Your task to perform on an android device: turn pop-ups on in chrome Image 0: 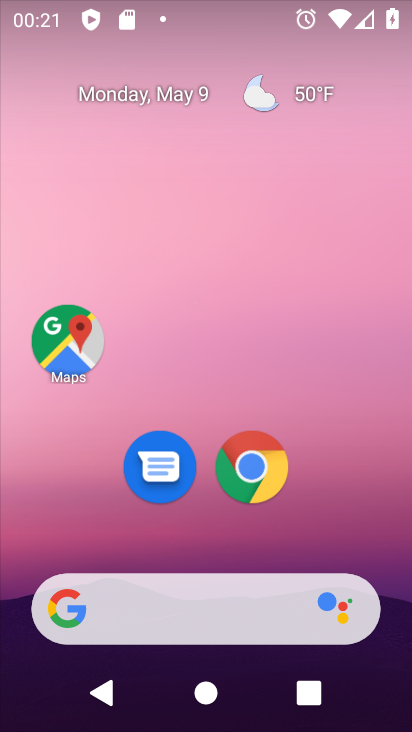
Step 0: click (243, 458)
Your task to perform on an android device: turn pop-ups on in chrome Image 1: 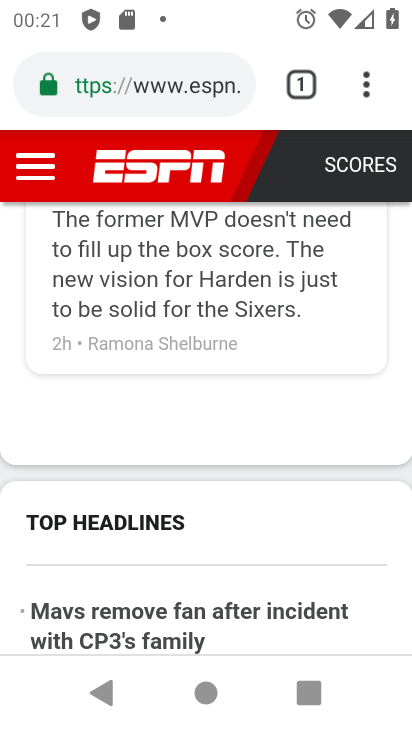
Step 1: click (368, 77)
Your task to perform on an android device: turn pop-ups on in chrome Image 2: 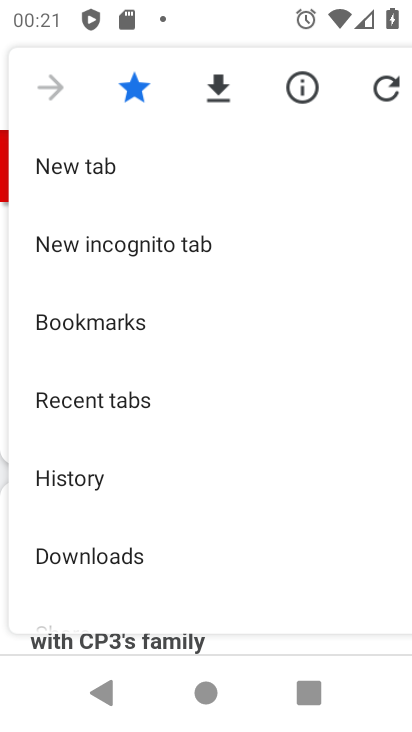
Step 2: drag from (175, 567) to (225, 121)
Your task to perform on an android device: turn pop-ups on in chrome Image 3: 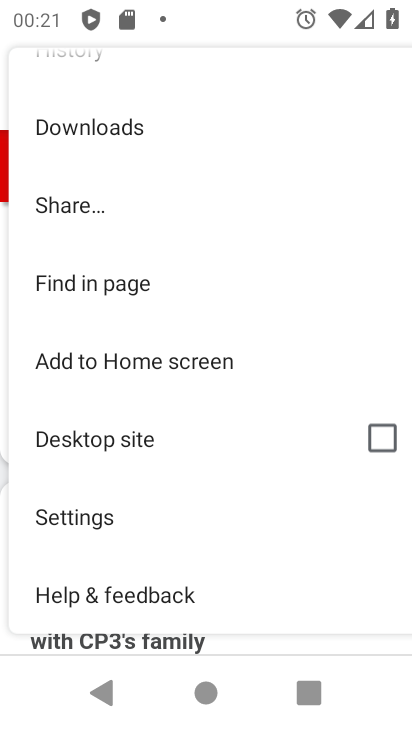
Step 3: click (120, 519)
Your task to perform on an android device: turn pop-ups on in chrome Image 4: 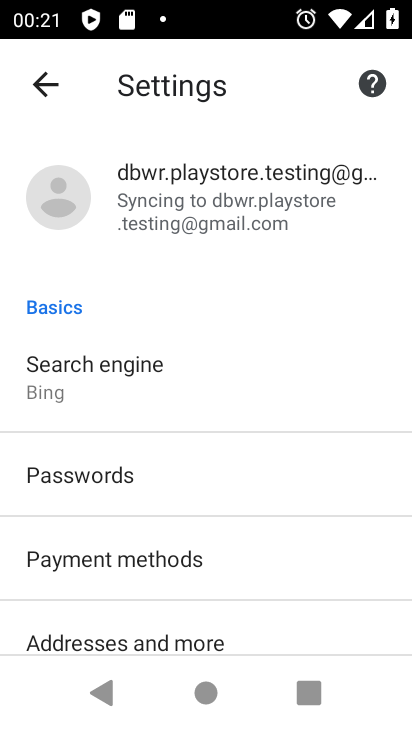
Step 4: drag from (267, 624) to (278, 130)
Your task to perform on an android device: turn pop-ups on in chrome Image 5: 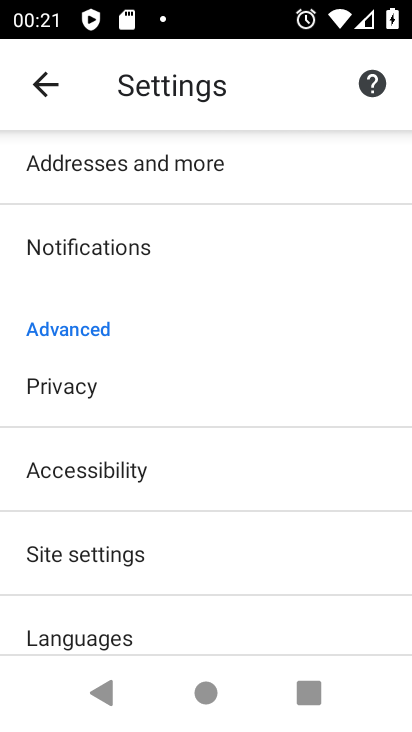
Step 5: click (158, 552)
Your task to perform on an android device: turn pop-ups on in chrome Image 6: 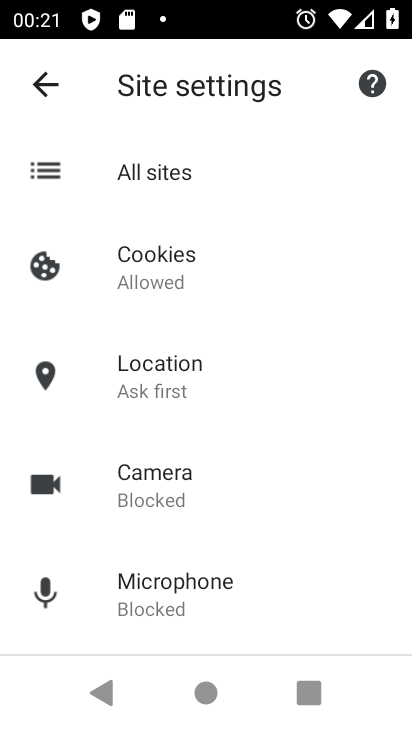
Step 6: drag from (215, 603) to (228, 115)
Your task to perform on an android device: turn pop-ups on in chrome Image 7: 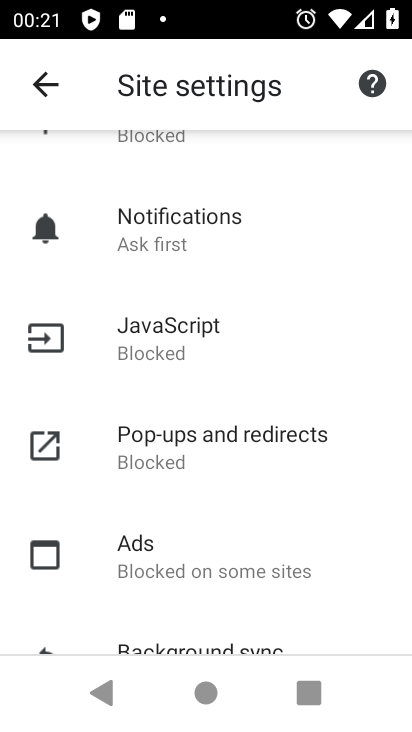
Step 7: click (226, 449)
Your task to perform on an android device: turn pop-ups on in chrome Image 8: 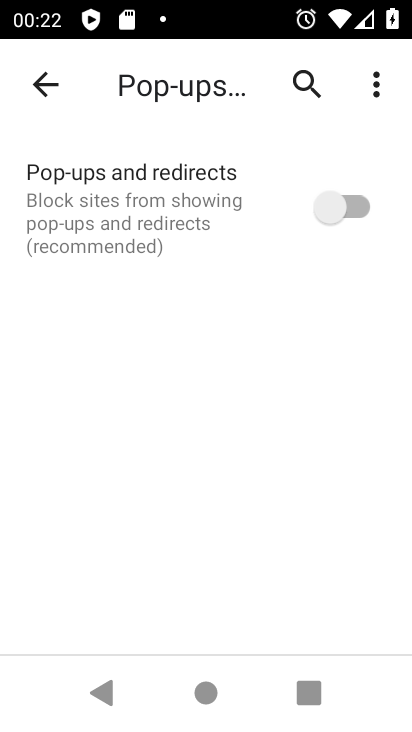
Step 8: click (351, 195)
Your task to perform on an android device: turn pop-ups on in chrome Image 9: 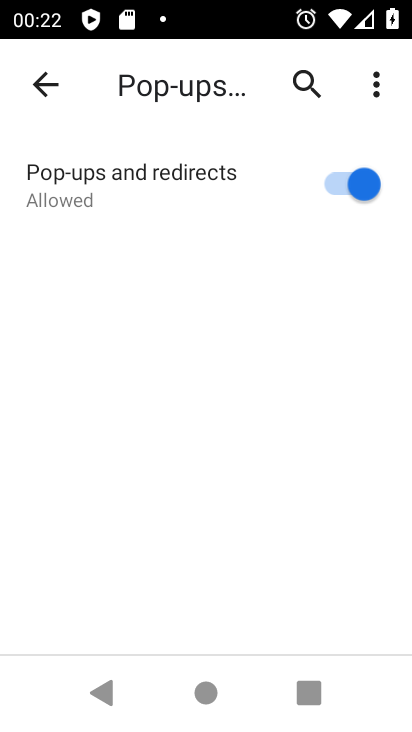
Step 9: task complete